Your task to perform on an android device: What's the weather going to be tomorrow? Image 0: 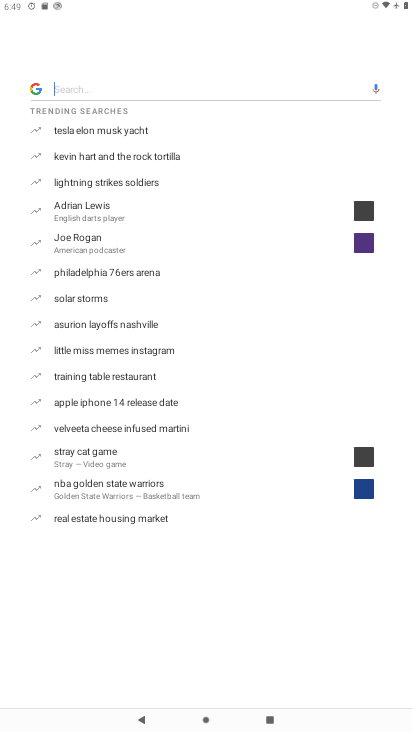
Step 0: drag from (360, 628) to (184, 135)
Your task to perform on an android device: What's the weather going to be tomorrow? Image 1: 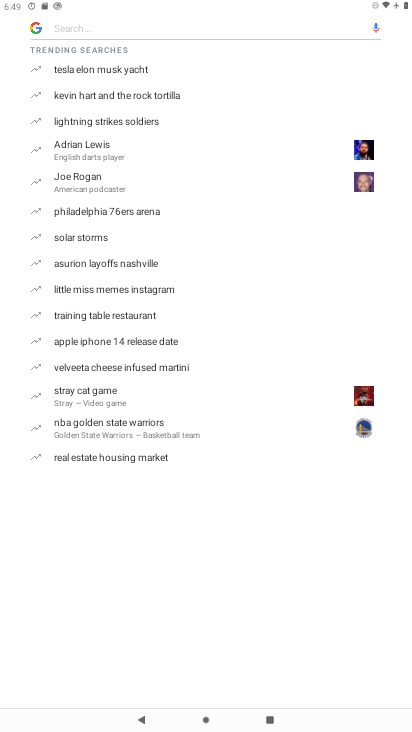
Step 1: press home button
Your task to perform on an android device: What's the weather going to be tomorrow? Image 2: 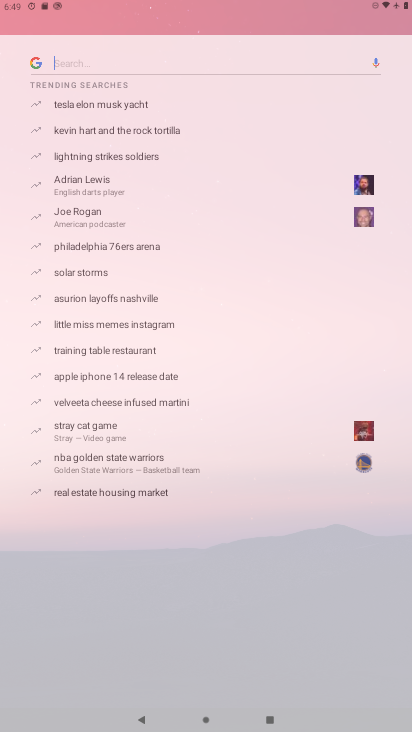
Step 2: drag from (399, 650) to (221, 24)
Your task to perform on an android device: What's the weather going to be tomorrow? Image 3: 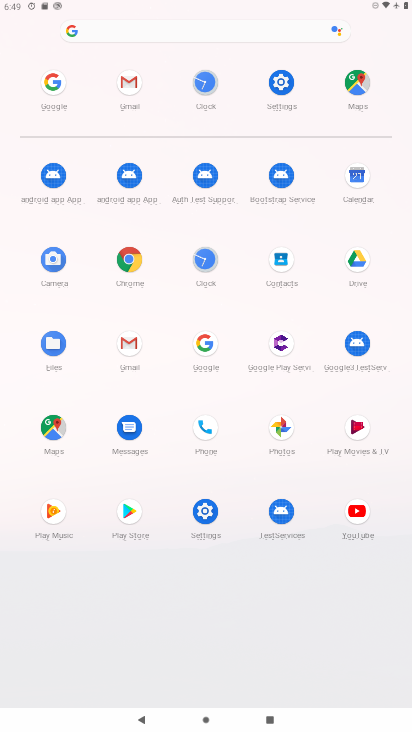
Step 3: click (210, 333)
Your task to perform on an android device: What's the weather going to be tomorrow? Image 4: 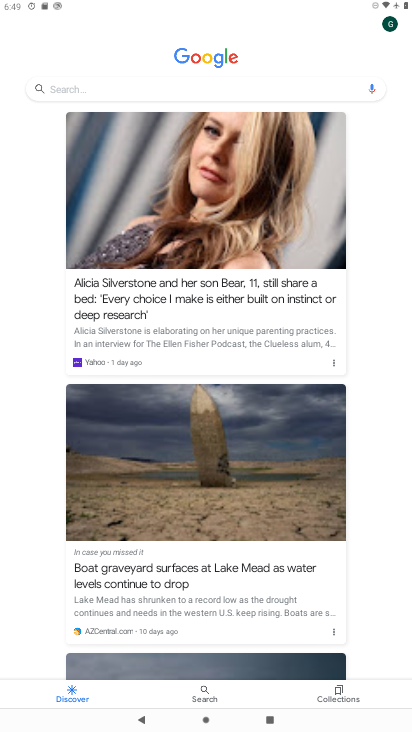
Step 4: type "What's the weather going to be tomorrow?"
Your task to perform on an android device: What's the weather going to be tomorrow? Image 5: 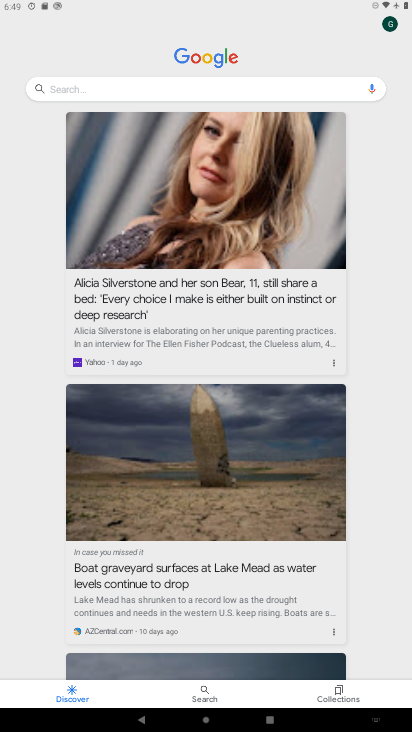
Step 5: click (164, 82)
Your task to perform on an android device: What's the weather going to be tomorrow? Image 6: 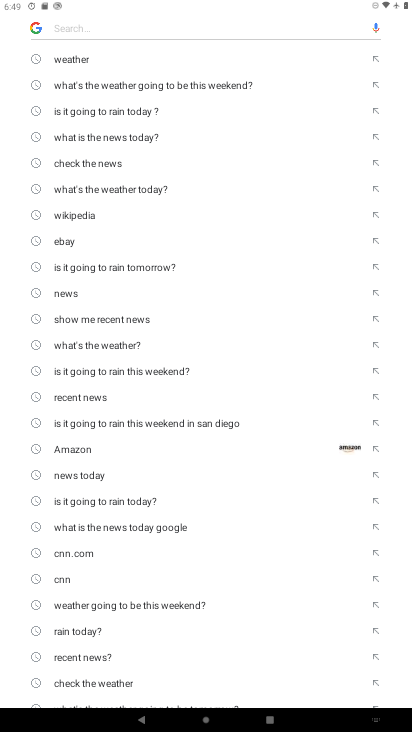
Step 6: type "What's the weather going to be tomorrow?"
Your task to perform on an android device: What's the weather going to be tomorrow? Image 7: 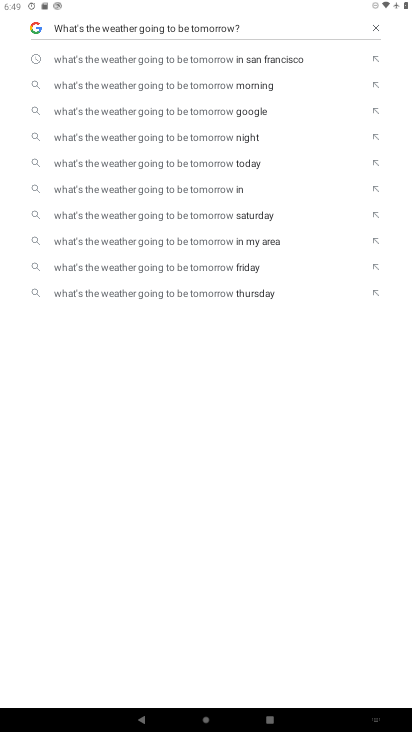
Step 7: click (169, 114)
Your task to perform on an android device: What's the weather going to be tomorrow? Image 8: 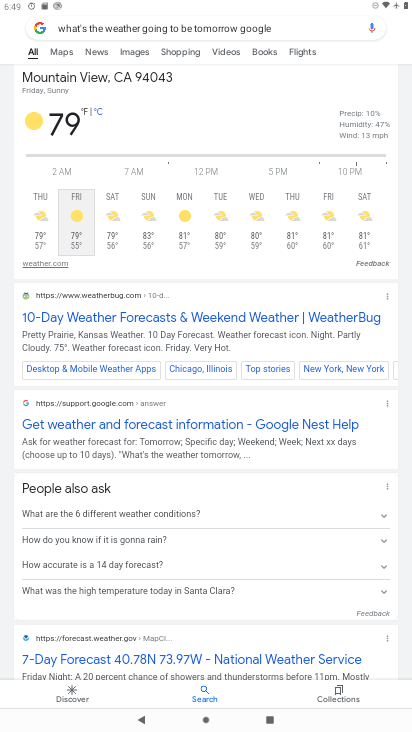
Step 8: task complete